Your task to perform on an android device: toggle airplane mode Image 0: 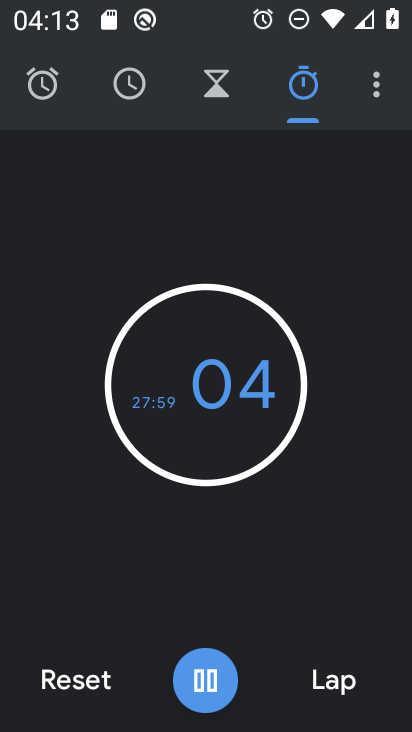
Step 0: drag from (305, 583) to (345, 42)
Your task to perform on an android device: toggle airplane mode Image 1: 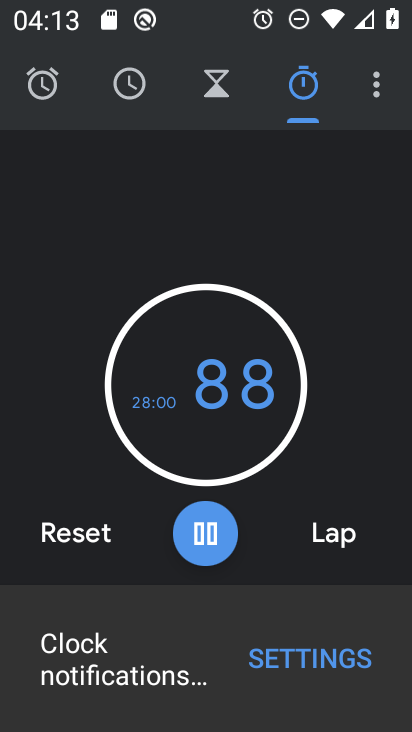
Step 1: press home button
Your task to perform on an android device: toggle airplane mode Image 2: 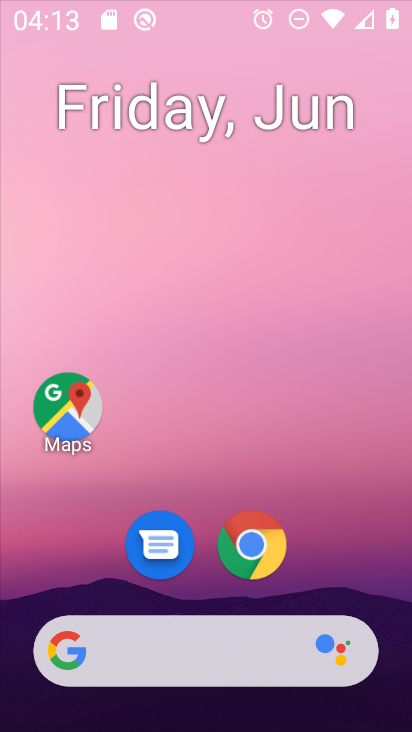
Step 2: drag from (263, 506) to (289, 68)
Your task to perform on an android device: toggle airplane mode Image 3: 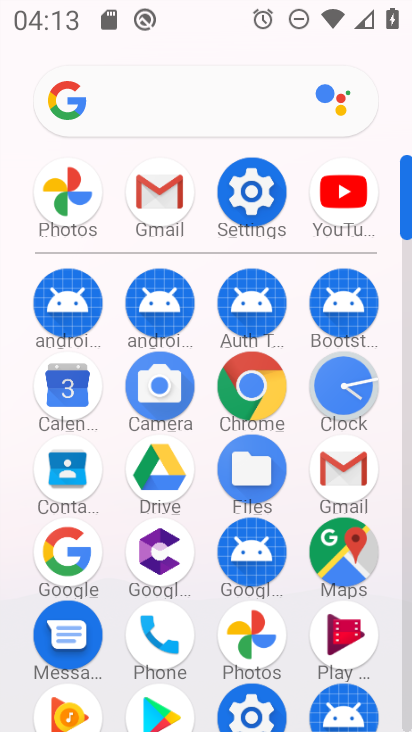
Step 3: click (256, 190)
Your task to perform on an android device: toggle airplane mode Image 4: 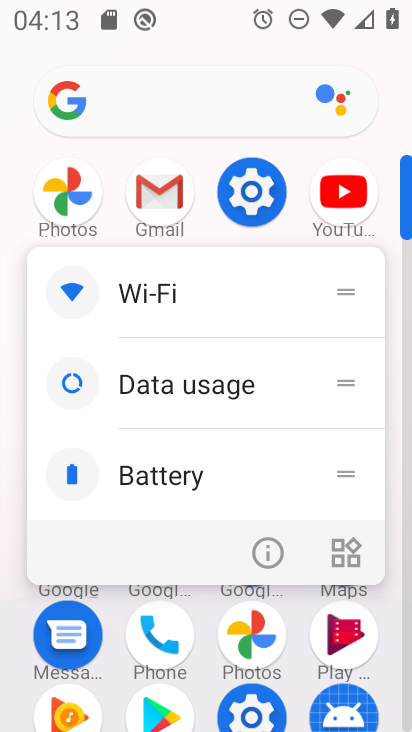
Step 4: click (256, 197)
Your task to perform on an android device: toggle airplane mode Image 5: 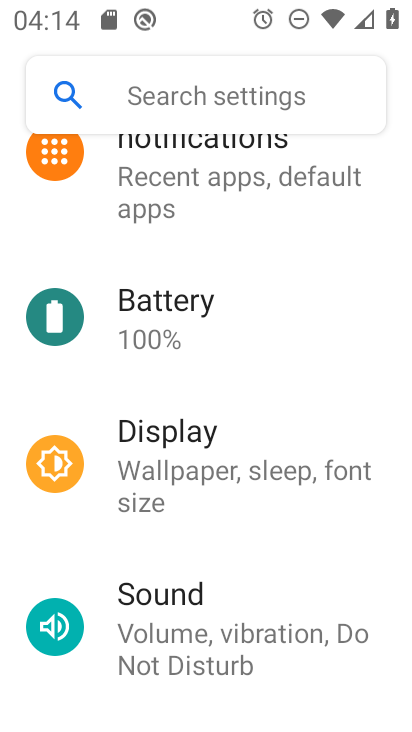
Step 5: drag from (284, 243) to (344, 617)
Your task to perform on an android device: toggle airplane mode Image 6: 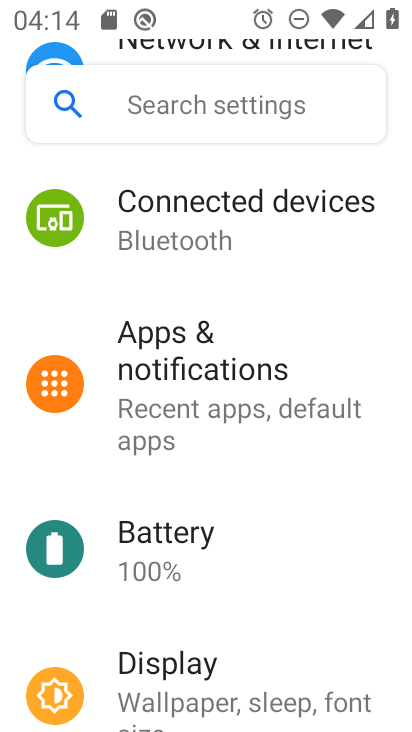
Step 6: drag from (318, 292) to (350, 704)
Your task to perform on an android device: toggle airplane mode Image 7: 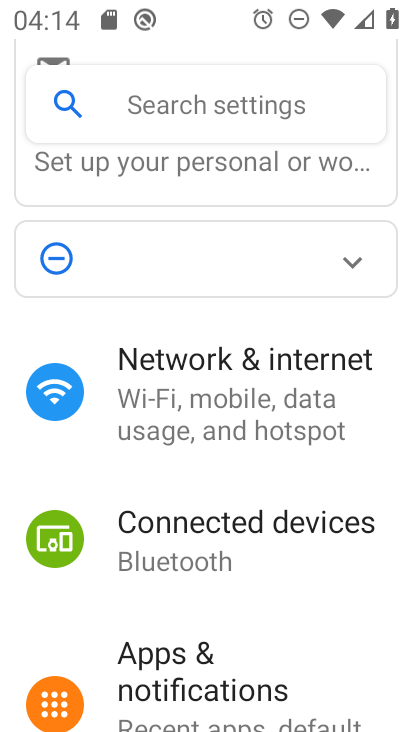
Step 7: click (272, 430)
Your task to perform on an android device: toggle airplane mode Image 8: 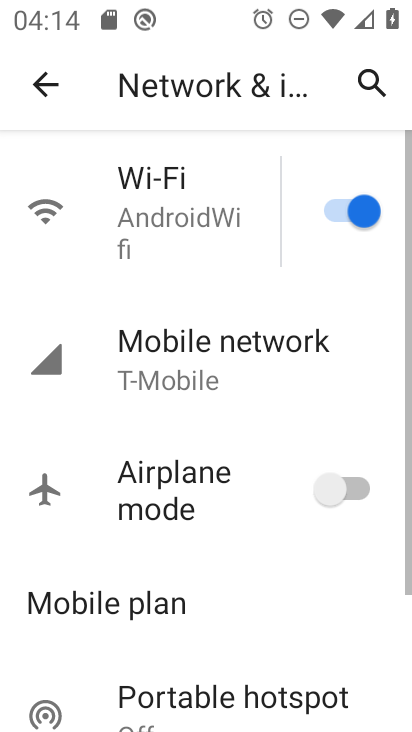
Step 8: click (344, 486)
Your task to perform on an android device: toggle airplane mode Image 9: 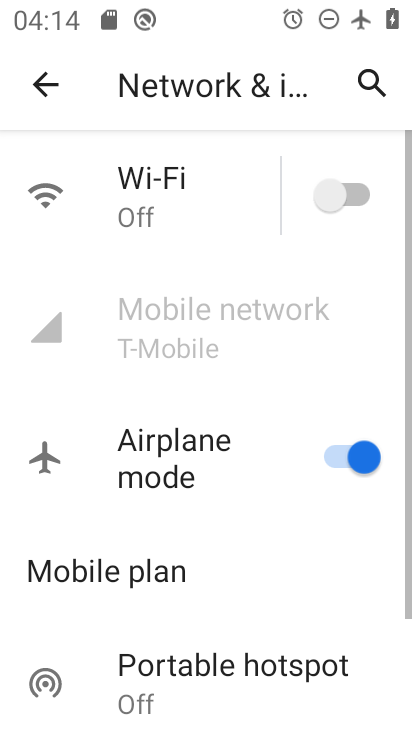
Step 9: task complete